Your task to perform on an android device: Go to internet settings Image 0: 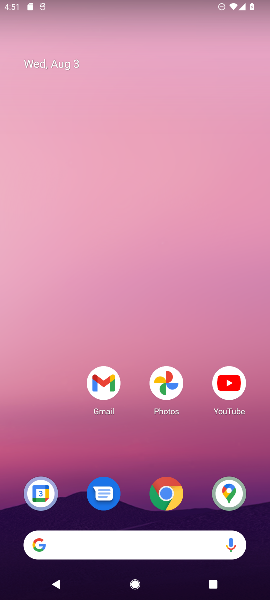
Step 0: press home button
Your task to perform on an android device: Go to internet settings Image 1: 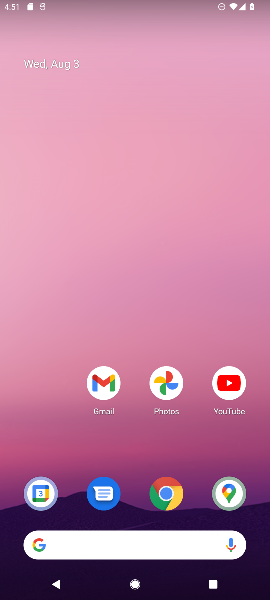
Step 1: drag from (57, 464) to (80, 169)
Your task to perform on an android device: Go to internet settings Image 2: 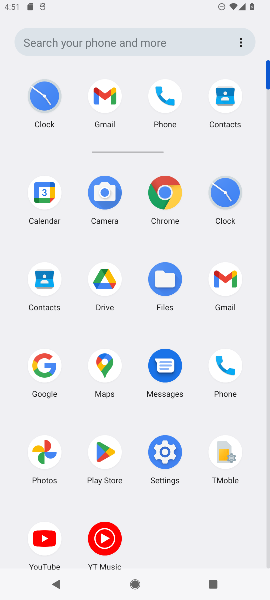
Step 2: click (168, 450)
Your task to perform on an android device: Go to internet settings Image 3: 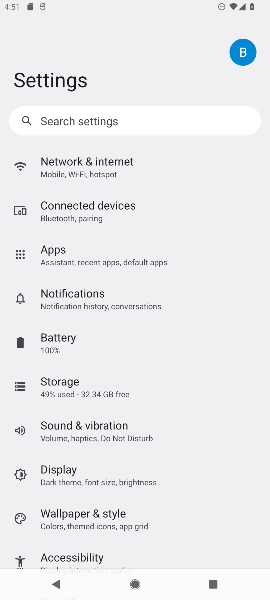
Step 3: drag from (232, 480) to (232, 368)
Your task to perform on an android device: Go to internet settings Image 4: 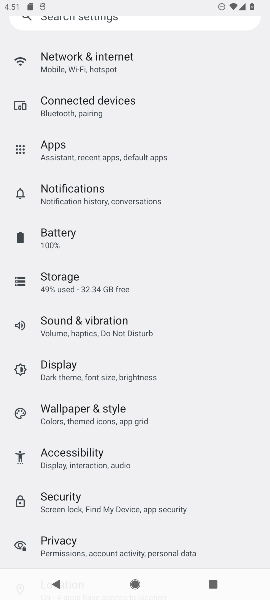
Step 4: drag from (230, 496) to (237, 423)
Your task to perform on an android device: Go to internet settings Image 5: 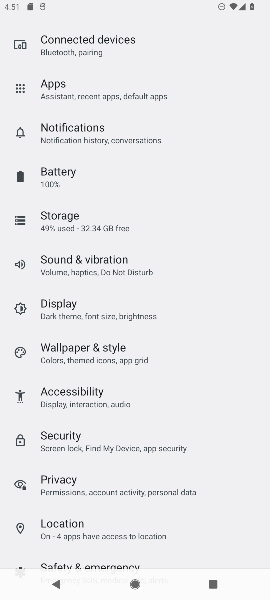
Step 5: drag from (239, 511) to (240, 424)
Your task to perform on an android device: Go to internet settings Image 6: 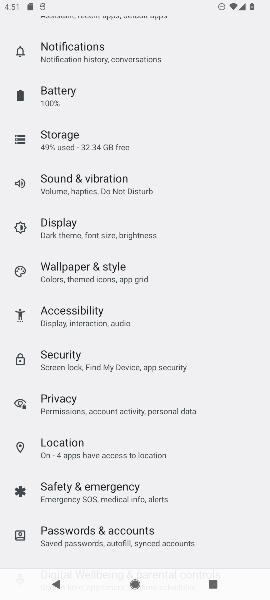
Step 6: drag from (227, 507) to (225, 423)
Your task to perform on an android device: Go to internet settings Image 7: 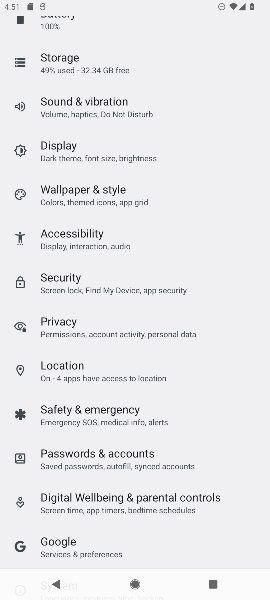
Step 7: drag from (233, 521) to (231, 403)
Your task to perform on an android device: Go to internet settings Image 8: 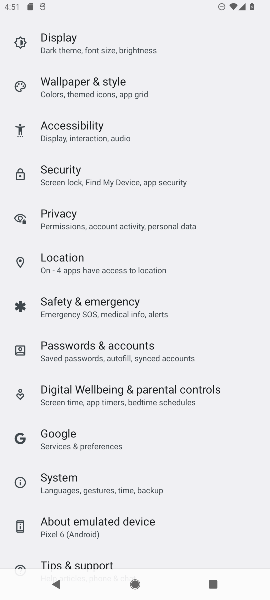
Step 8: drag from (233, 288) to (246, 371)
Your task to perform on an android device: Go to internet settings Image 9: 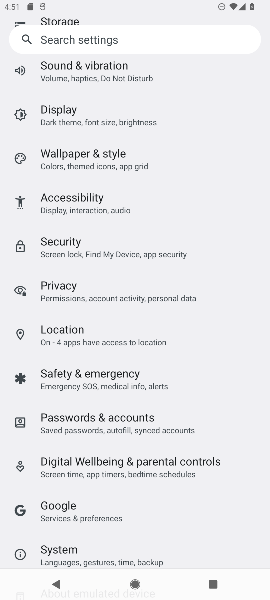
Step 9: drag from (239, 258) to (240, 375)
Your task to perform on an android device: Go to internet settings Image 10: 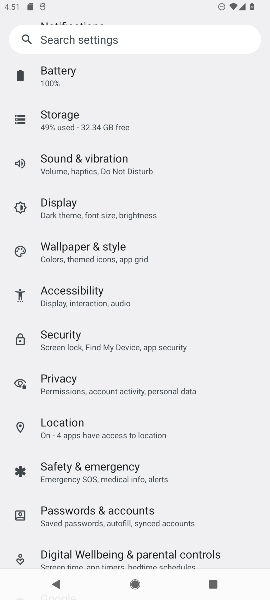
Step 10: drag from (227, 224) to (235, 352)
Your task to perform on an android device: Go to internet settings Image 11: 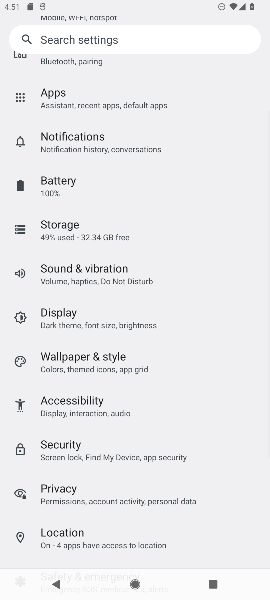
Step 11: drag from (223, 162) to (215, 348)
Your task to perform on an android device: Go to internet settings Image 12: 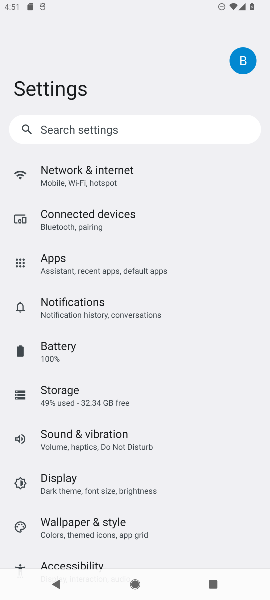
Step 12: click (119, 179)
Your task to perform on an android device: Go to internet settings Image 13: 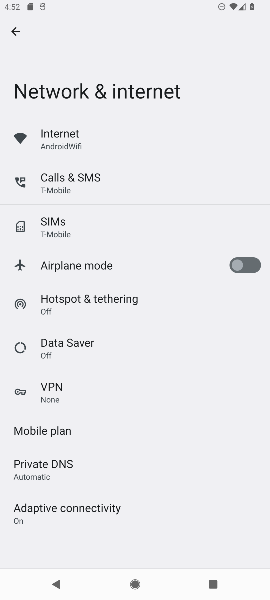
Step 13: task complete